Your task to perform on an android device: create a new album in the google photos Image 0: 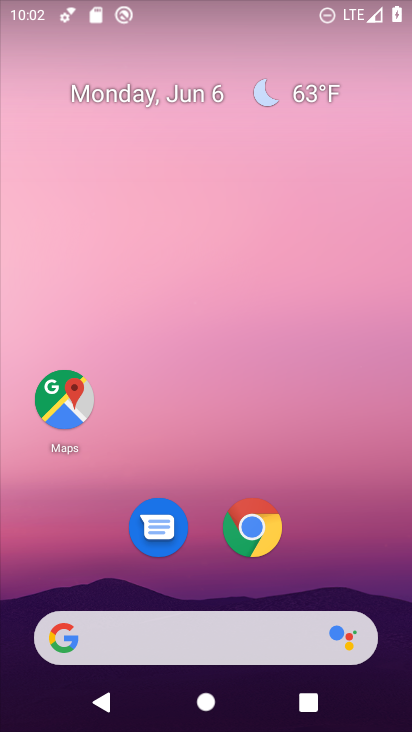
Step 0: drag from (361, 577) to (339, 209)
Your task to perform on an android device: create a new album in the google photos Image 1: 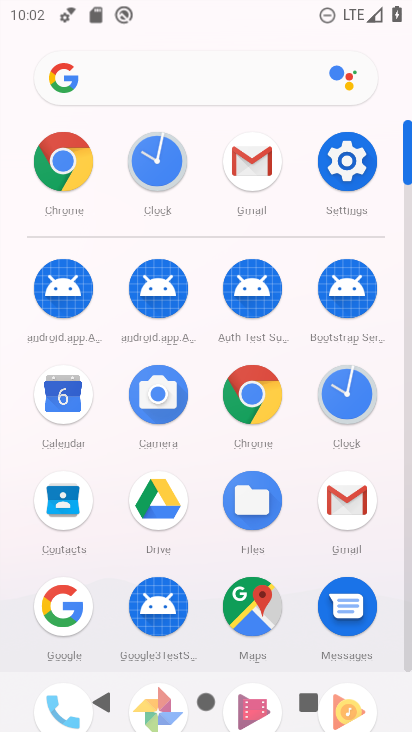
Step 1: drag from (201, 544) to (205, 267)
Your task to perform on an android device: create a new album in the google photos Image 2: 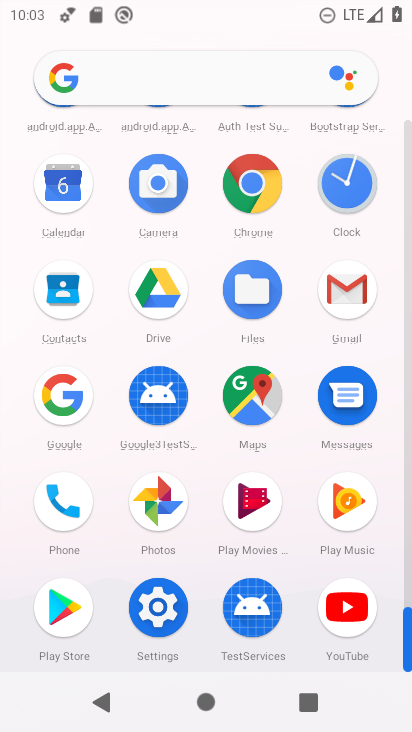
Step 2: click (165, 507)
Your task to perform on an android device: create a new album in the google photos Image 3: 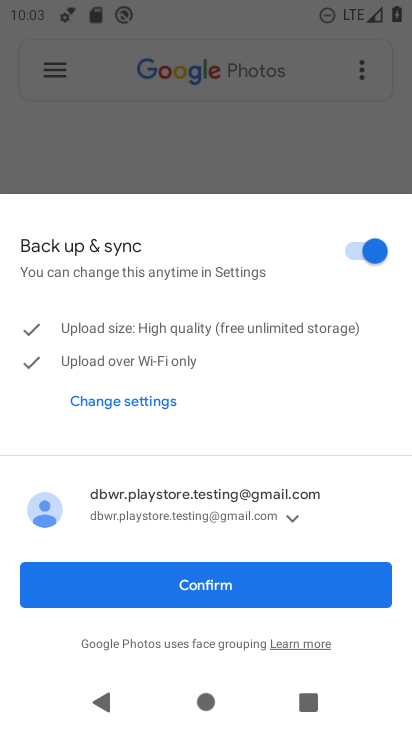
Step 3: click (243, 587)
Your task to perform on an android device: create a new album in the google photos Image 4: 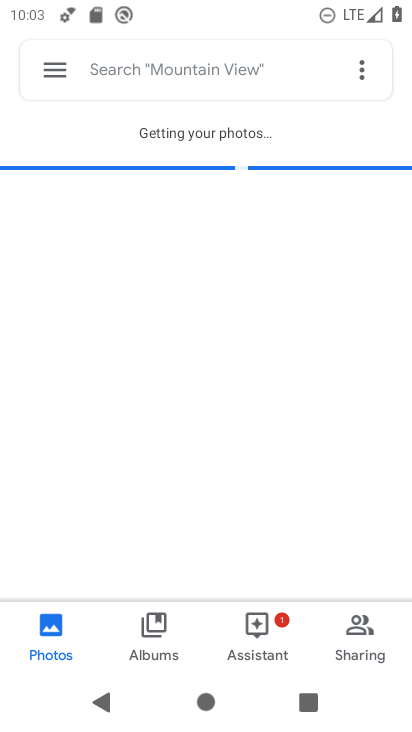
Step 4: click (365, 73)
Your task to perform on an android device: create a new album in the google photos Image 5: 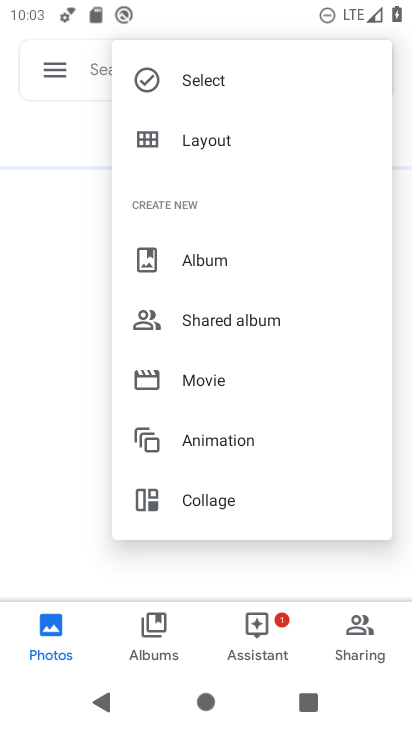
Step 5: click (217, 264)
Your task to perform on an android device: create a new album in the google photos Image 6: 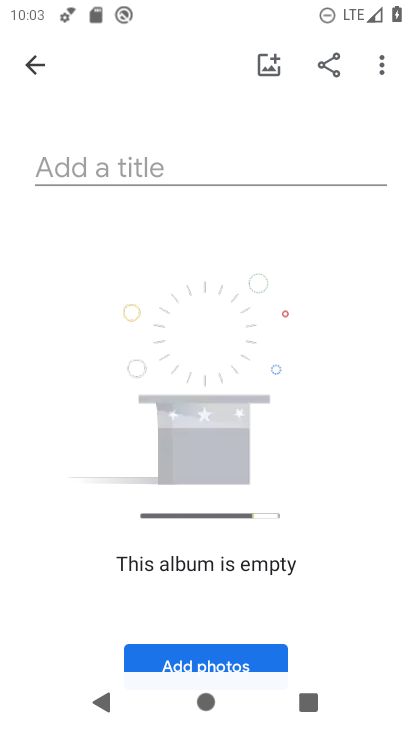
Step 6: click (197, 170)
Your task to perform on an android device: create a new album in the google photos Image 7: 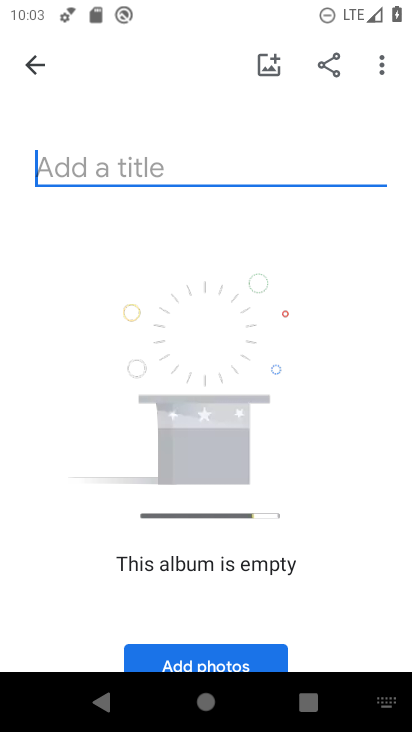
Step 7: type "fav"
Your task to perform on an android device: create a new album in the google photos Image 8: 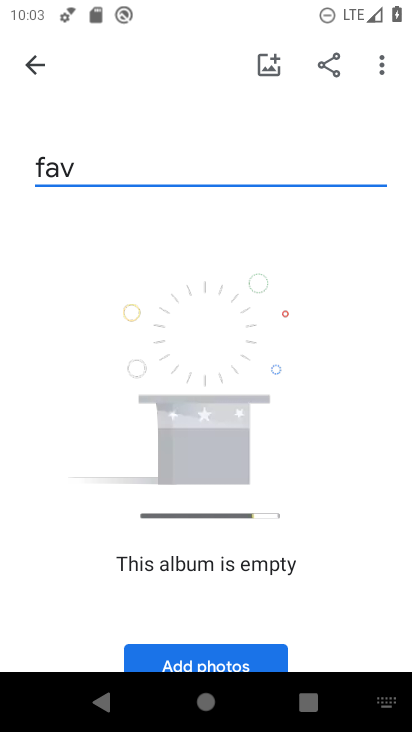
Step 8: drag from (325, 538) to (340, 381)
Your task to perform on an android device: create a new album in the google photos Image 9: 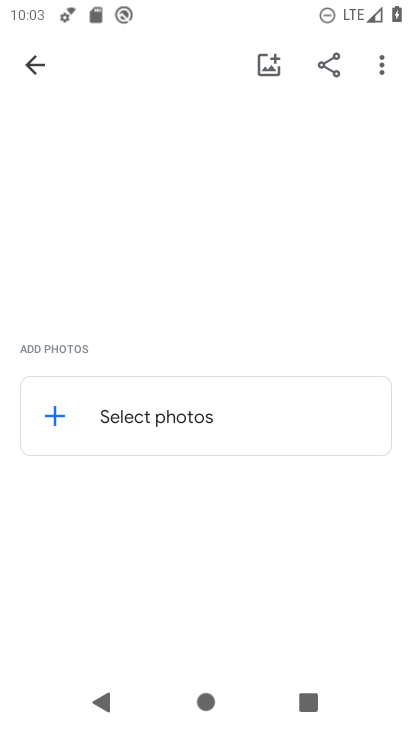
Step 9: click (132, 440)
Your task to perform on an android device: create a new album in the google photos Image 10: 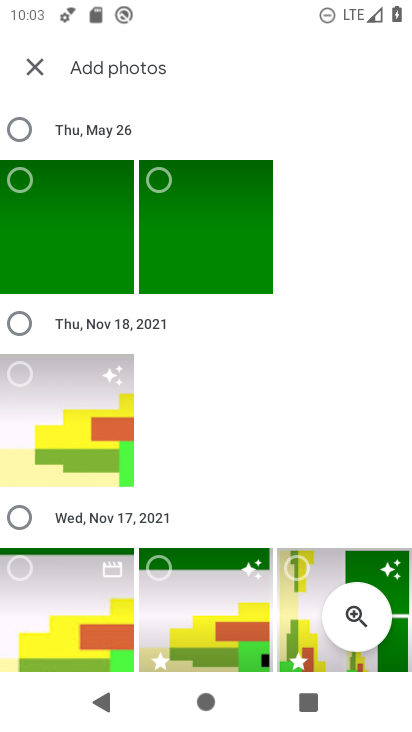
Step 10: click (74, 254)
Your task to perform on an android device: create a new album in the google photos Image 11: 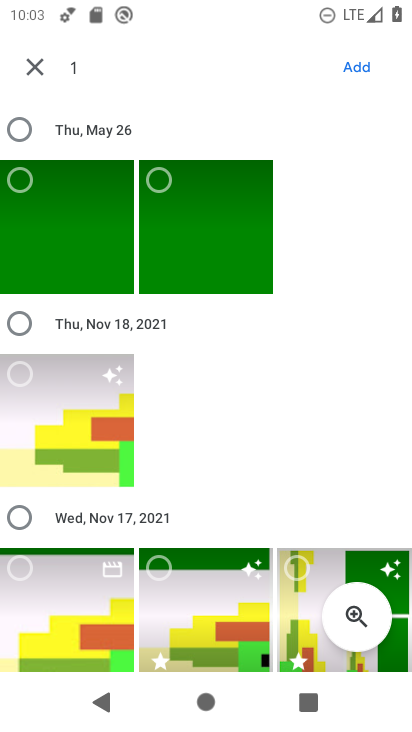
Step 11: click (175, 242)
Your task to perform on an android device: create a new album in the google photos Image 12: 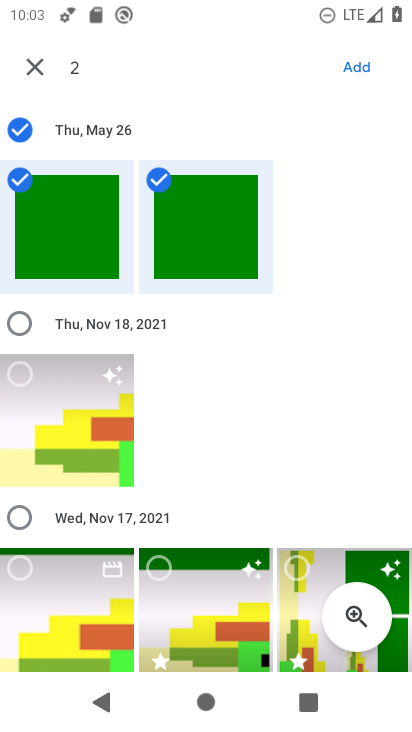
Step 12: click (353, 62)
Your task to perform on an android device: create a new album in the google photos Image 13: 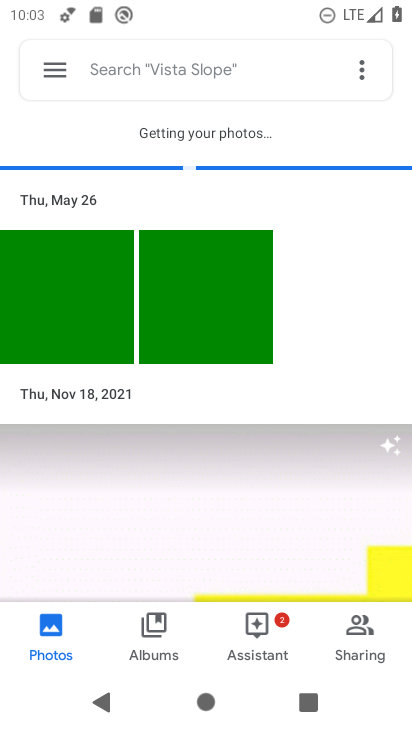
Step 13: task complete